Your task to perform on an android device: Open wifi settings Image 0: 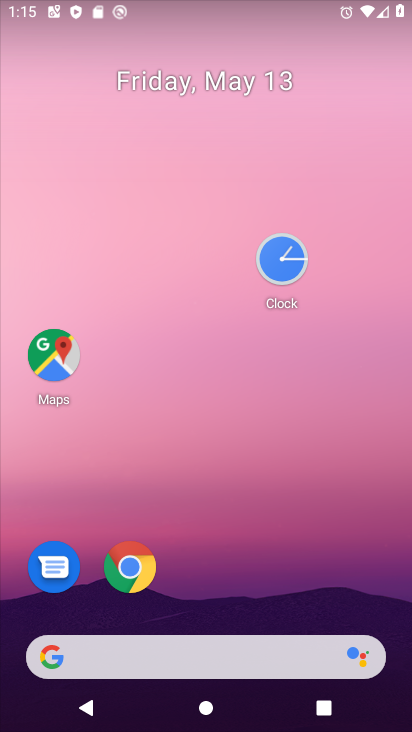
Step 0: drag from (230, 566) to (215, 153)
Your task to perform on an android device: Open wifi settings Image 1: 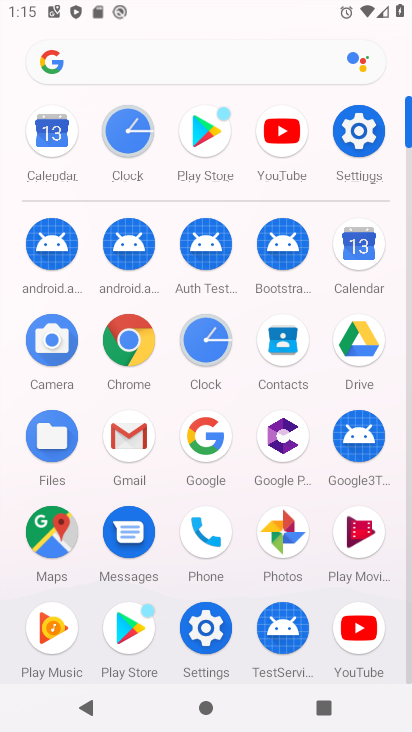
Step 1: click (342, 153)
Your task to perform on an android device: Open wifi settings Image 2: 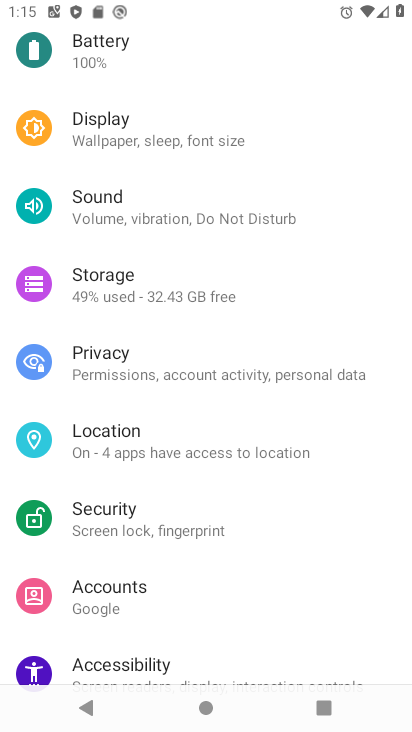
Step 2: drag from (270, 151) to (234, 665)
Your task to perform on an android device: Open wifi settings Image 3: 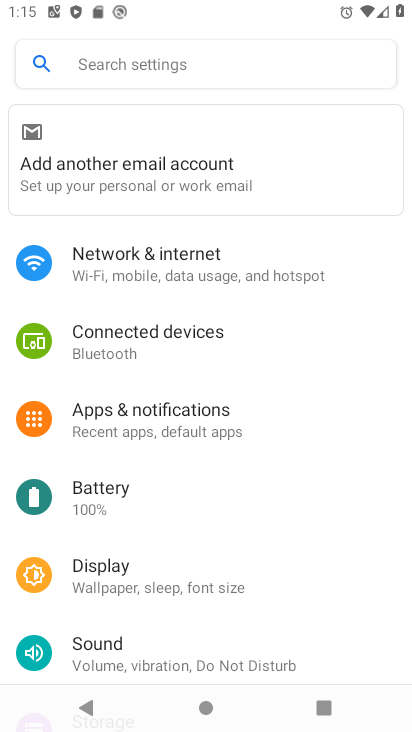
Step 3: click (240, 246)
Your task to perform on an android device: Open wifi settings Image 4: 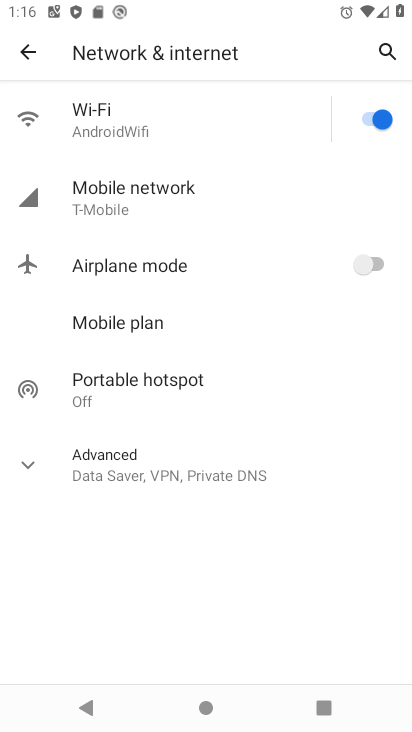
Step 4: click (140, 146)
Your task to perform on an android device: Open wifi settings Image 5: 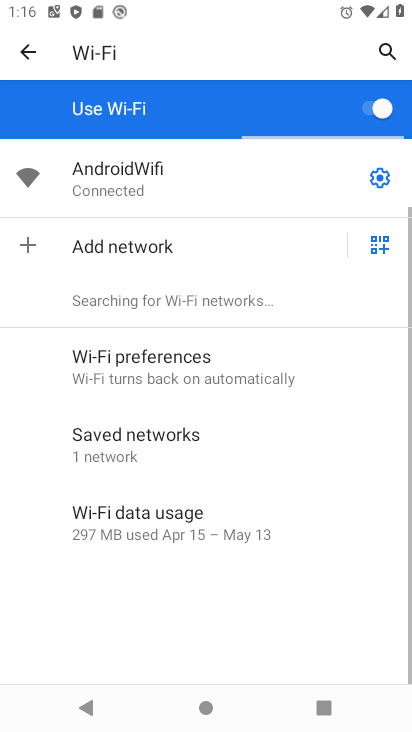
Step 5: task complete